Your task to perform on an android device: Go to Yahoo.com Image 0: 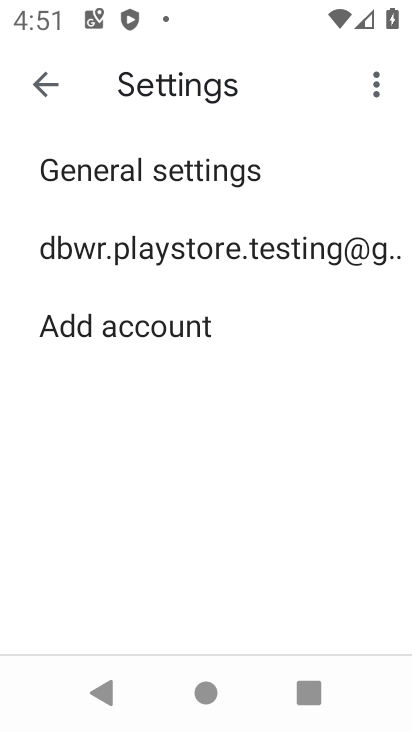
Step 0: press home button
Your task to perform on an android device: Go to Yahoo.com Image 1: 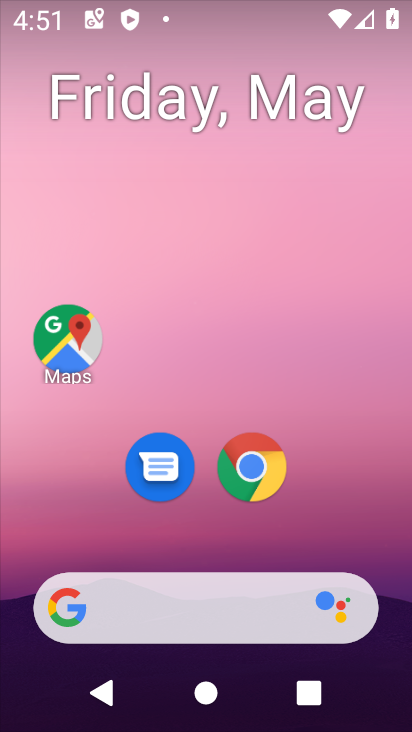
Step 1: click (252, 487)
Your task to perform on an android device: Go to Yahoo.com Image 2: 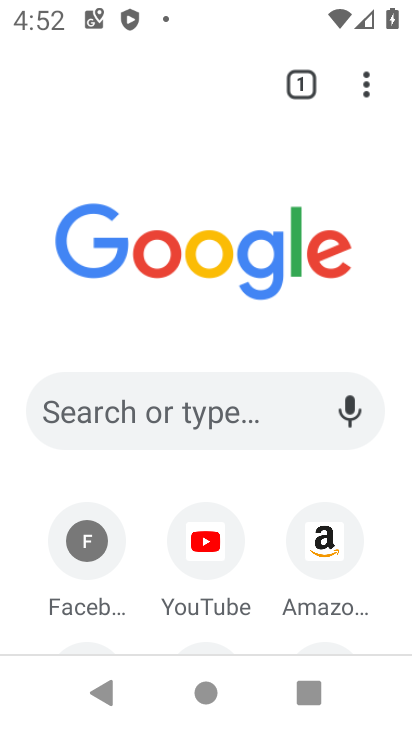
Step 2: click (312, 81)
Your task to perform on an android device: Go to Yahoo.com Image 3: 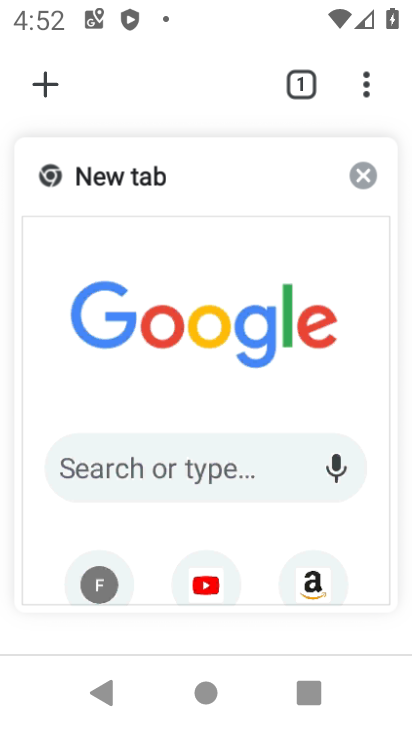
Step 3: click (50, 89)
Your task to perform on an android device: Go to Yahoo.com Image 4: 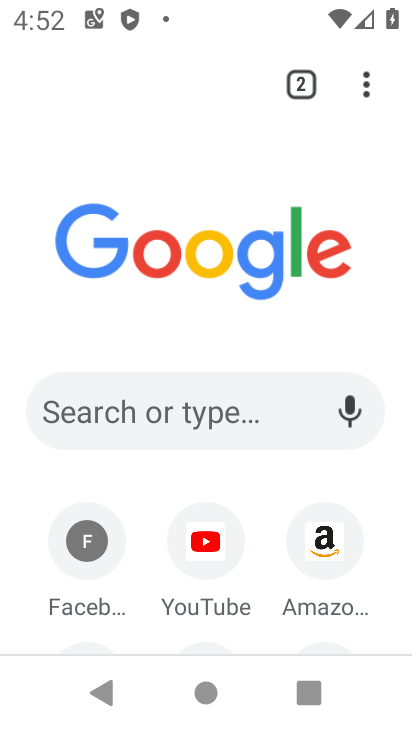
Step 4: drag from (244, 499) to (248, 158)
Your task to perform on an android device: Go to Yahoo.com Image 5: 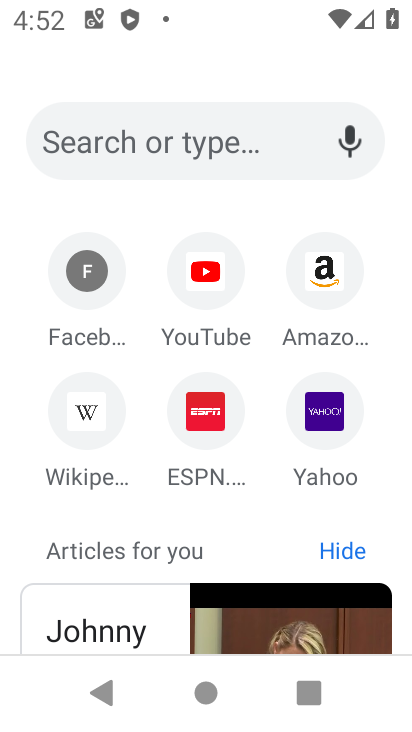
Step 5: click (339, 424)
Your task to perform on an android device: Go to Yahoo.com Image 6: 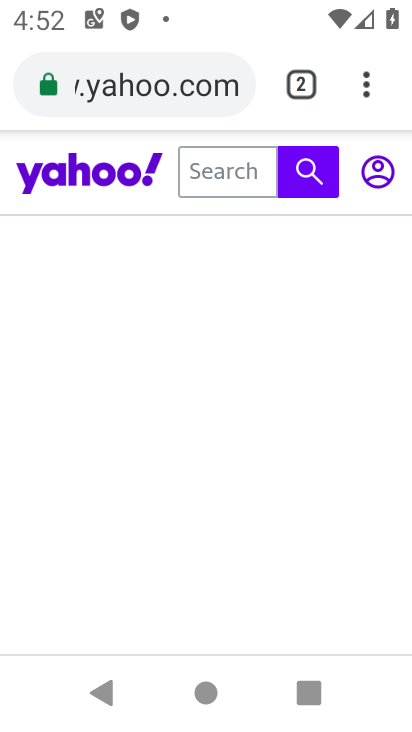
Step 6: task complete